Your task to perform on an android device: Search for usb-c to usb-a on target, select the first entry, add it to the cart, then select checkout. Image 0: 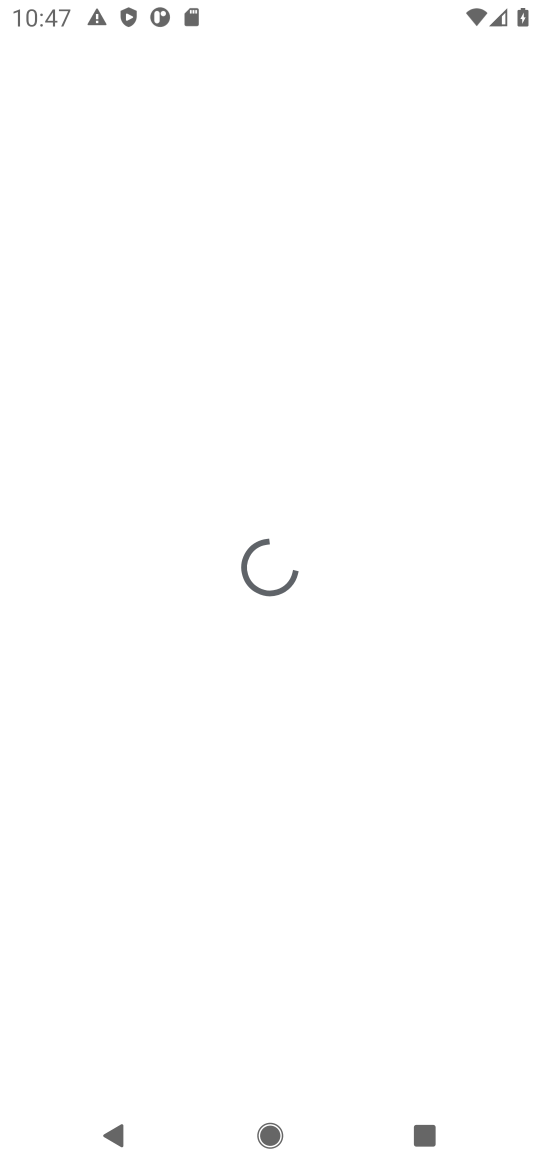
Step 0: click (111, 129)
Your task to perform on an android device: Search for usb-c to usb-a on target, select the first entry, add it to the cart, then select checkout. Image 1: 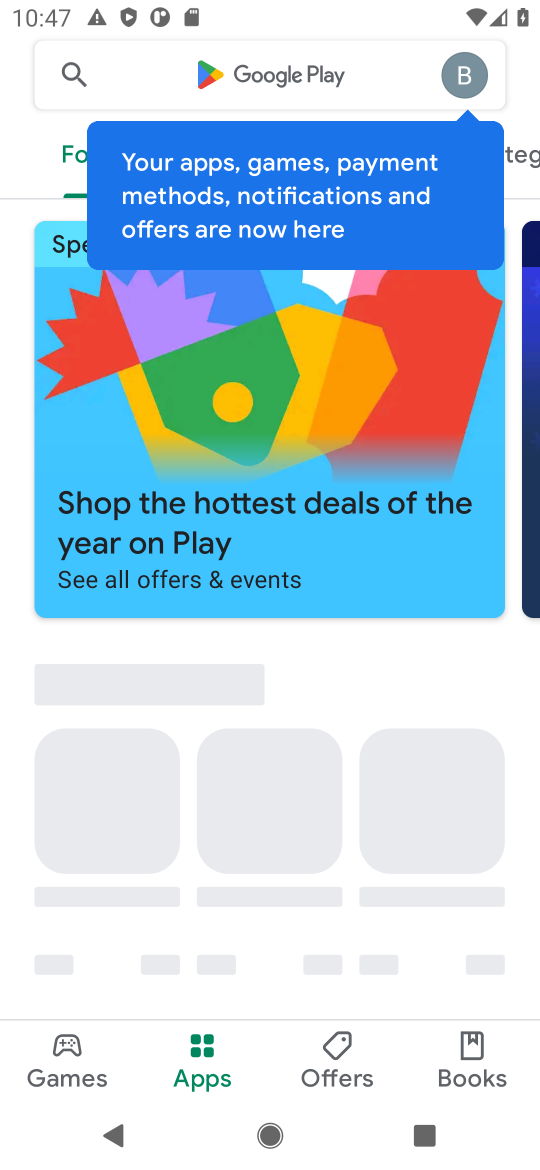
Step 1: press home button
Your task to perform on an android device: Search for usb-c to usb-a on target, select the first entry, add it to the cart, then select checkout. Image 2: 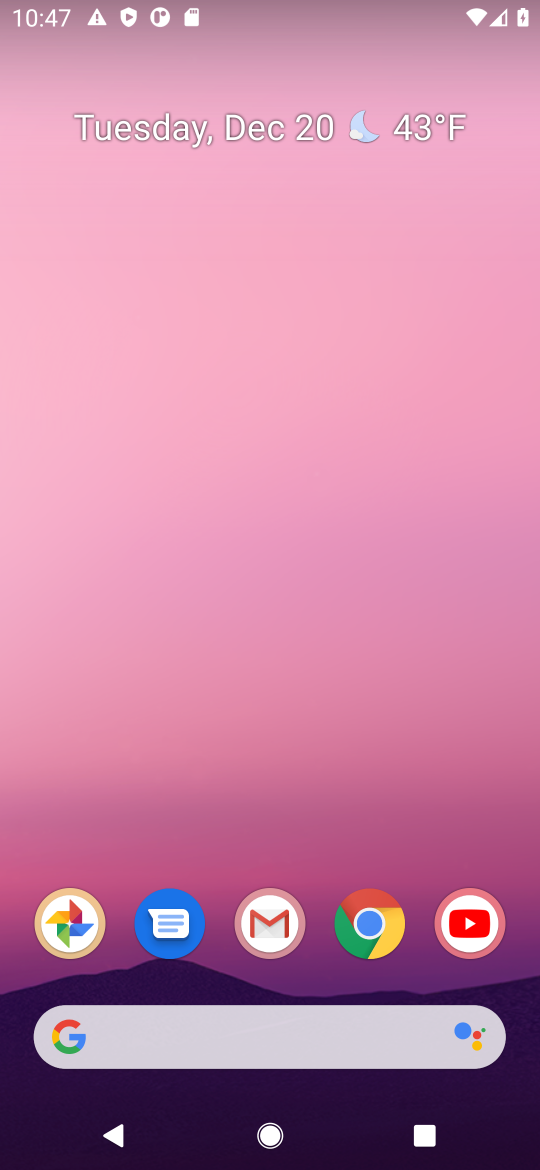
Step 2: click (392, 933)
Your task to perform on an android device: Search for usb-c to usb-a on target, select the first entry, add it to the cart, then select checkout. Image 3: 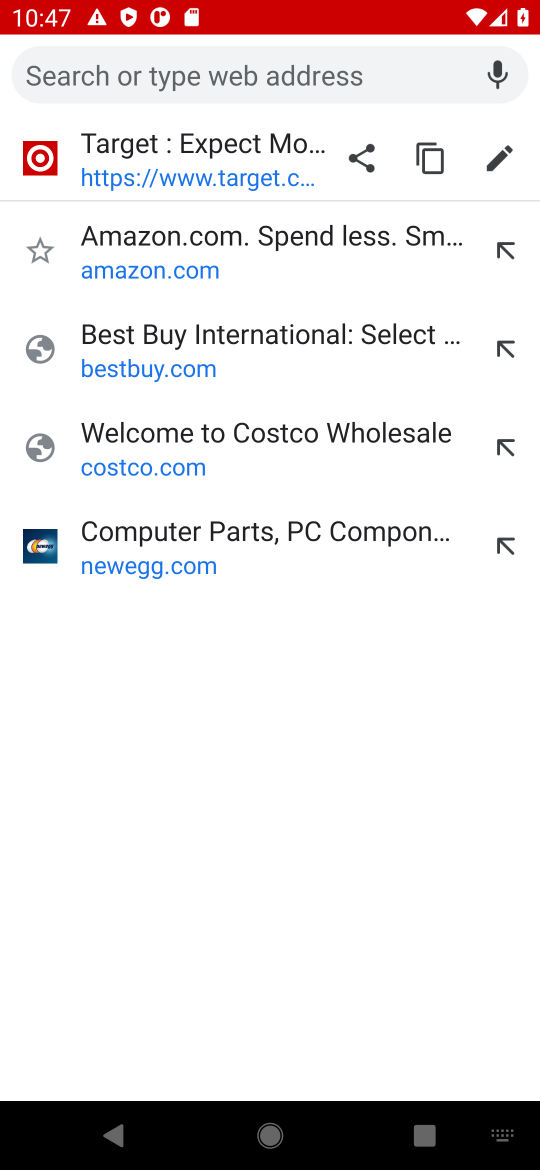
Step 3: click (222, 160)
Your task to perform on an android device: Search for usb-c to usb-a on target, select the first entry, add it to the cart, then select checkout. Image 4: 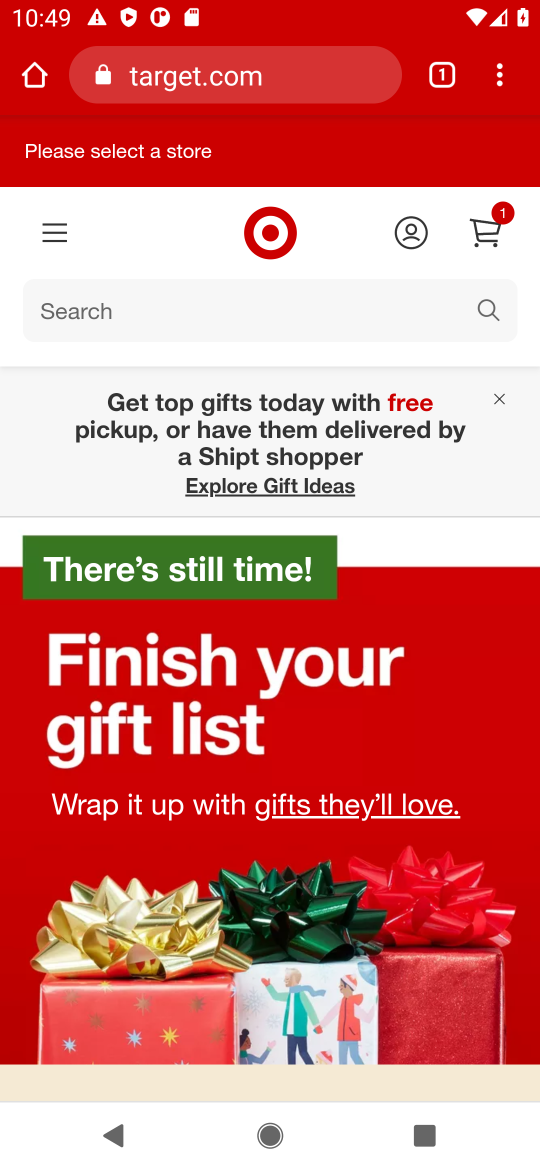
Step 4: task complete